Your task to perform on an android device: Go to Google Image 0: 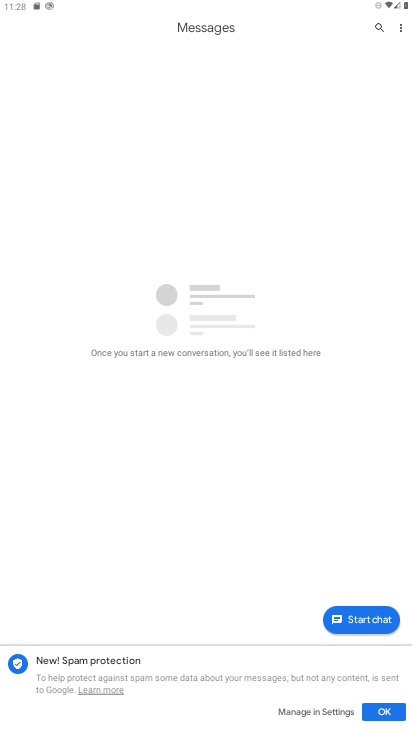
Step 0: press home button
Your task to perform on an android device: Go to Google Image 1: 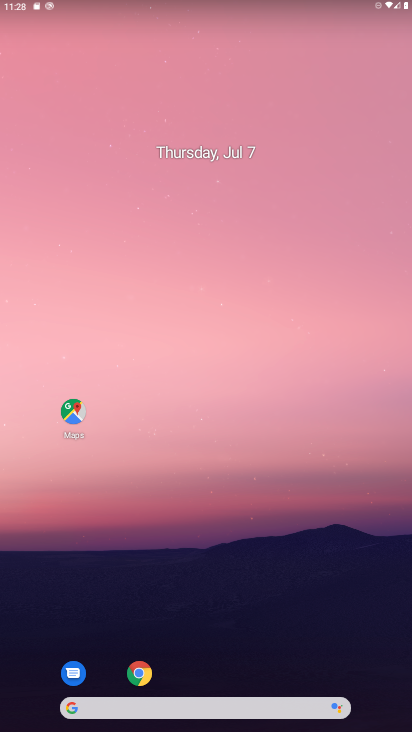
Step 1: drag from (381, 711) to (330, 160)
Your task to perform on an android device: Go to Google Image 2: 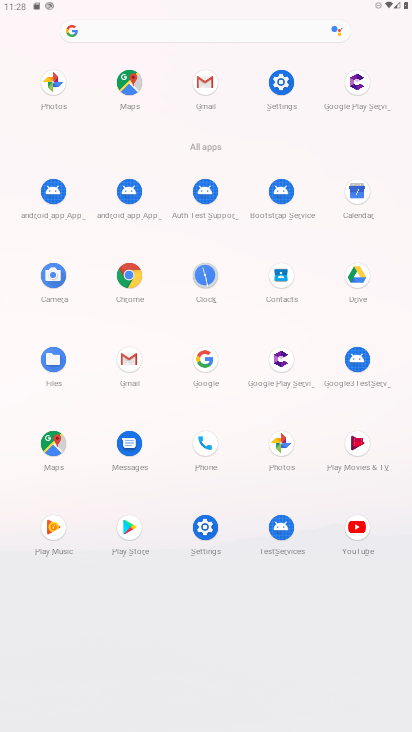
Step 2: click (202, 359)
Your task to perform on an android device: Go to Google Image 3: 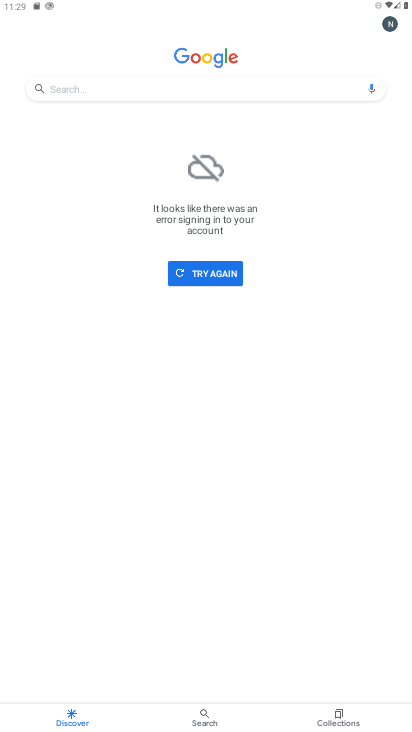
Step 3: task complete